Your task to perform on an android device: Check the news Image 0: 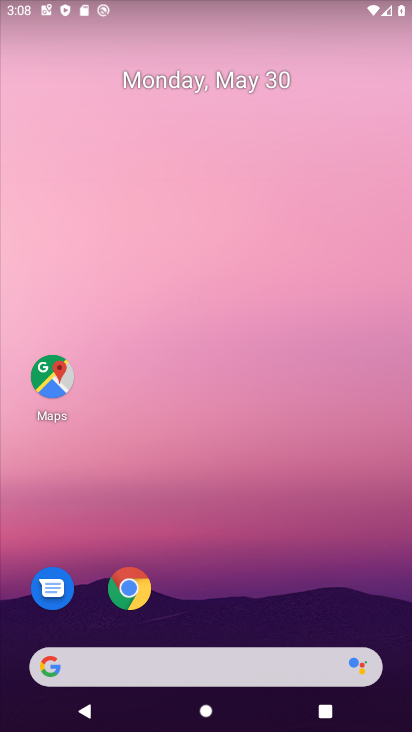
Step 0: drag from (276, 548) to (229, 41)
Your task to perform on an android device: Check the news Image 1: 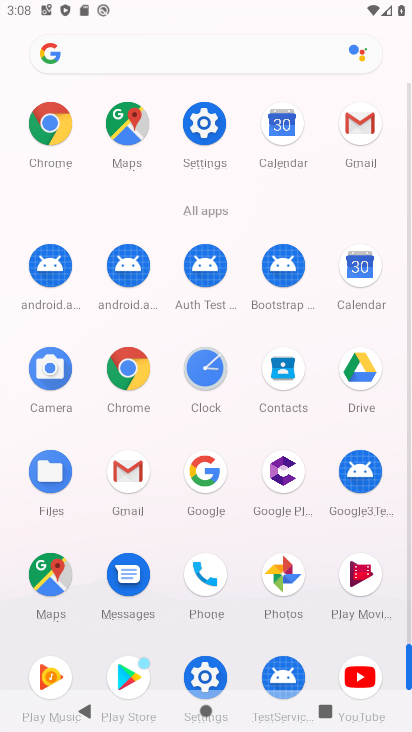
Step 1: drag from (18, 603) to (12, 255)
Your task to perform on an android device: Check the news Image 2: 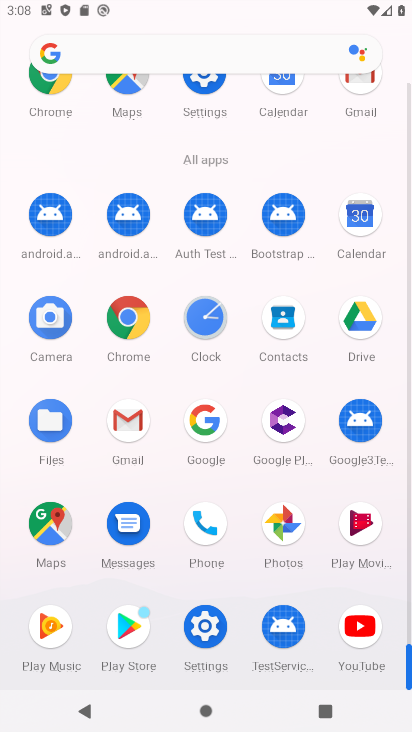
Step 2: click (125, 318)
Your task to perform on an android device: Check the news Image 3: 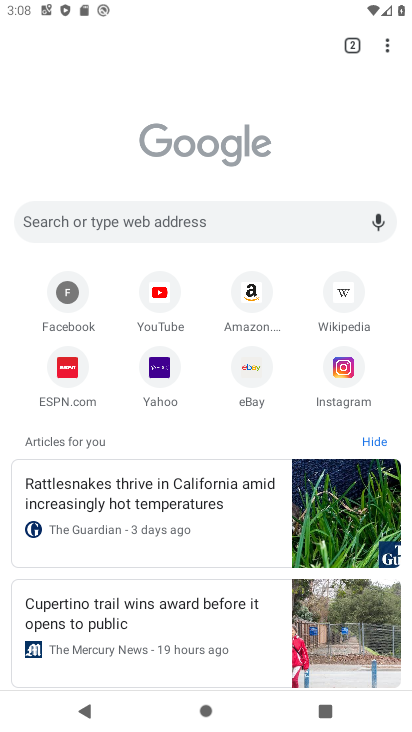
Step 3: click (174, 215)
Your task to perform on an android device: Check the news Image 4: 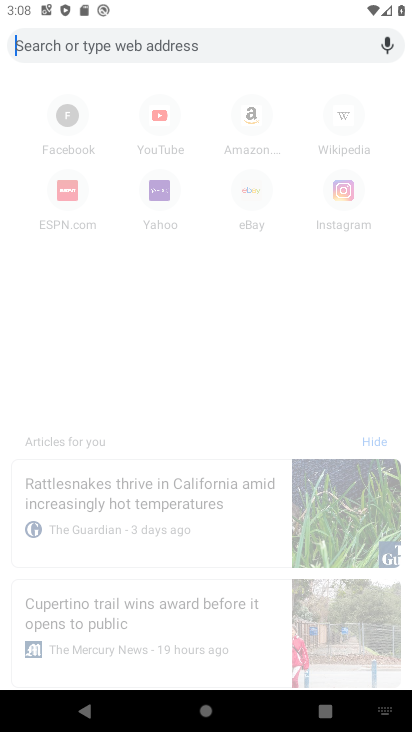
Step 4: type "Check the news"
Your task to perform on an android device: Check the news Image 5: 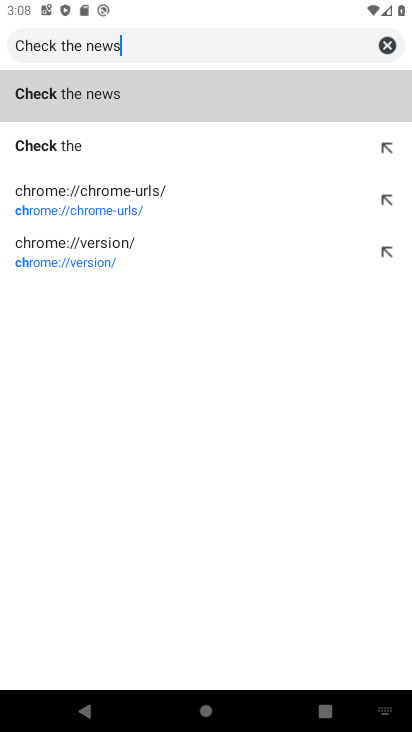
Step 5: type ""
Your task to perform on an android device: Check the news Image 6: 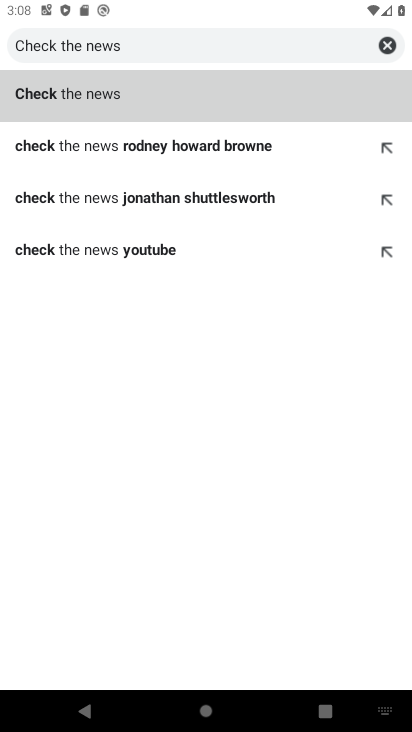
Step 6: click (103, 91)
Your task to perform on an android device: Check the news Image 7: 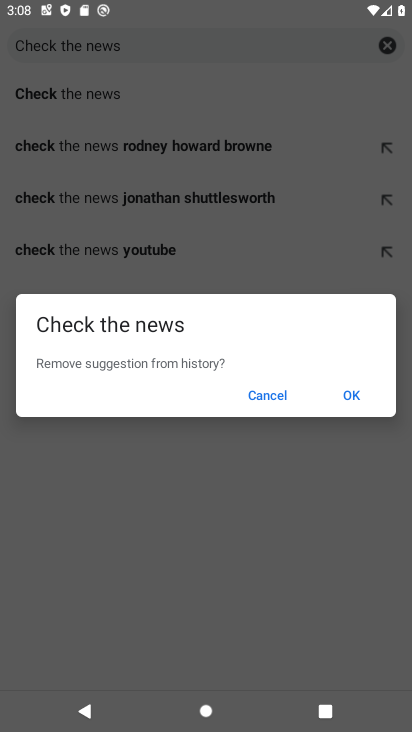
Step 7: click (359, 392)
Your task to perform on an android device: Check the news Image 8: 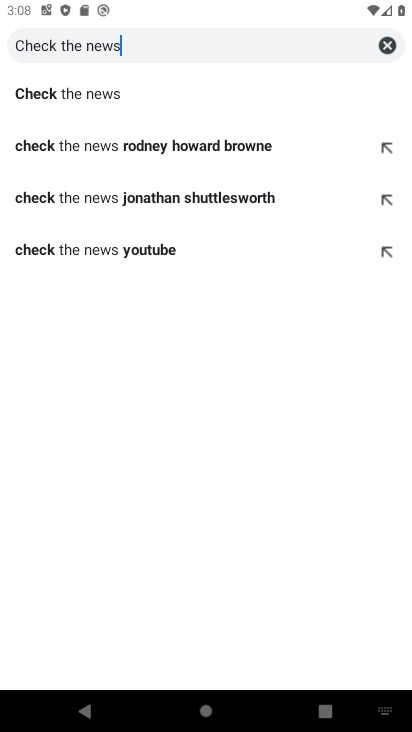
Step 8: click (126, 87)
Your task to perform on an android device: Check the news Image 9: 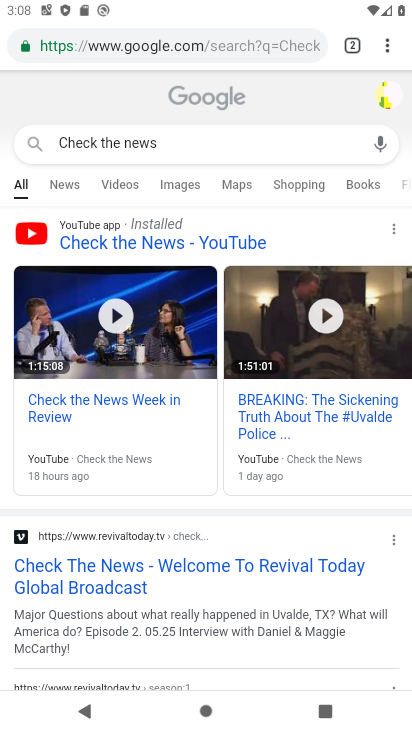
Step 9: task complete